Your task to perform on an android device: Open location settings Image 0: 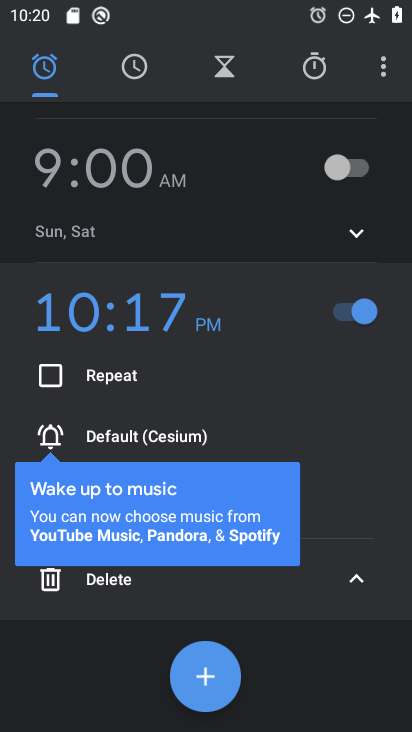
Step 0: press home button
Your task to perform on an android device: Open location settings Image 1: 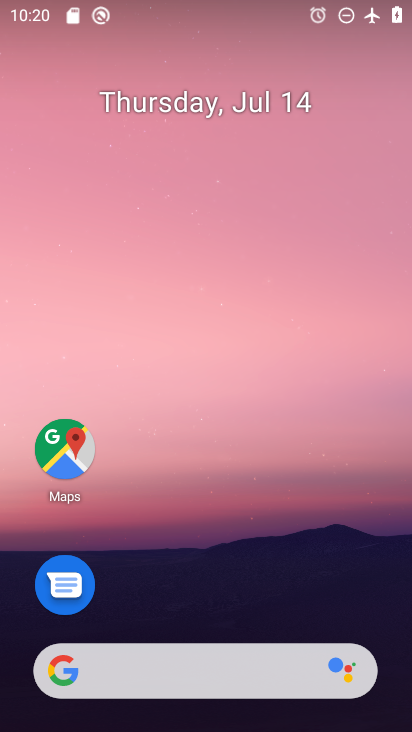
Step 1: drag from (223, 627) to (216, 162)
Your task to perform on an android device: Open location settings Image 2: 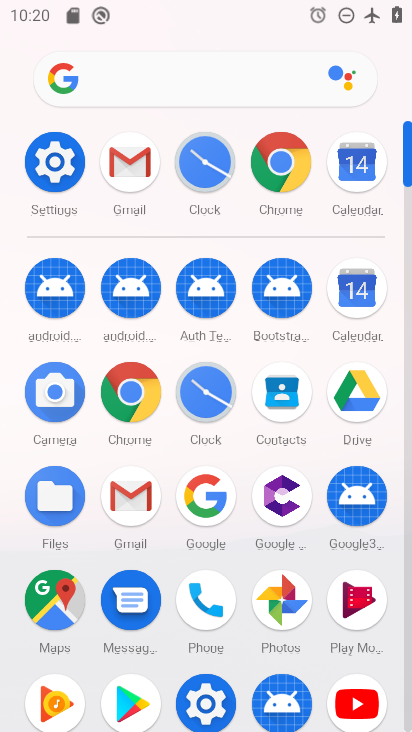
Step 2: click (69, 162)
Your task to perform on an android device: Open location settings Image 3: 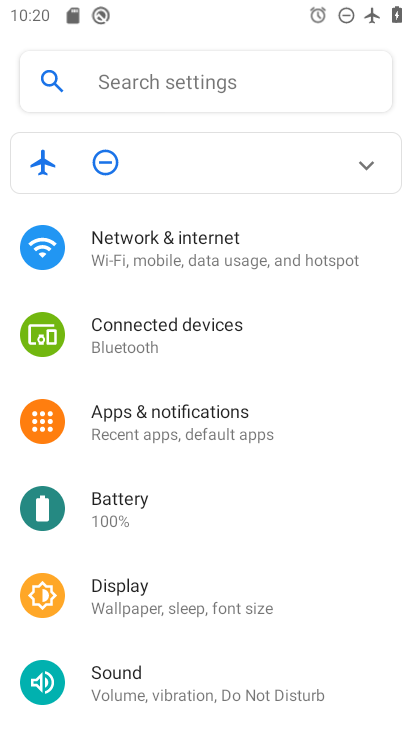
Step 3: drag from (154, 556) to (103, 169)
Your task to perform on an android device: Open location settings Image 4: 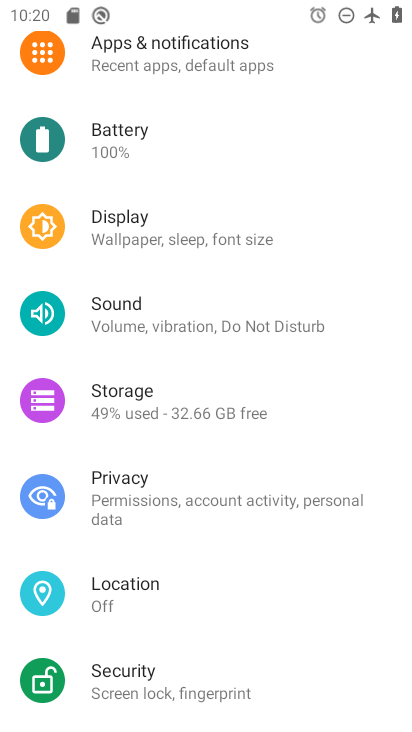
Step 4: click (121, 608)
Your task to perform on an android device: Open location settings Image 5: 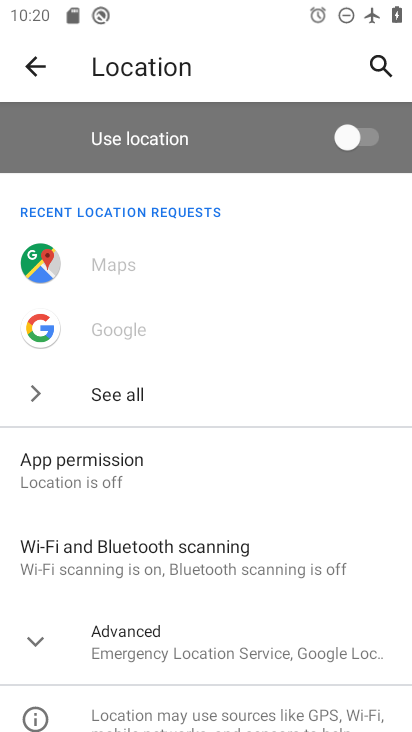
Step 5: click (124, 613)
Your task to perform on an android device: Open location settings Image 6: 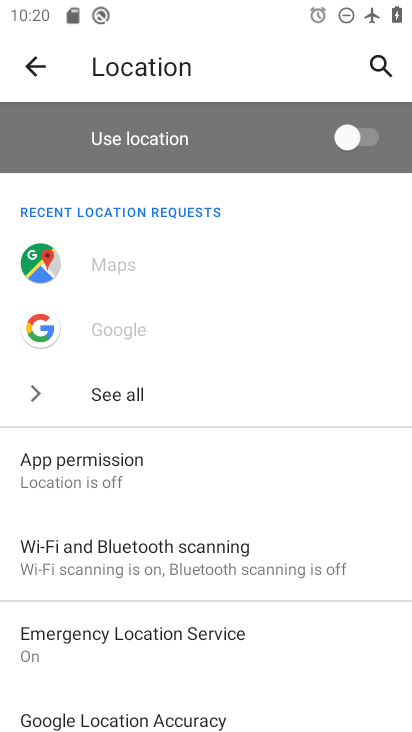
Step 6: task complete